Your task to perform on an android device: refresh tabs in the chrome app Image 0: 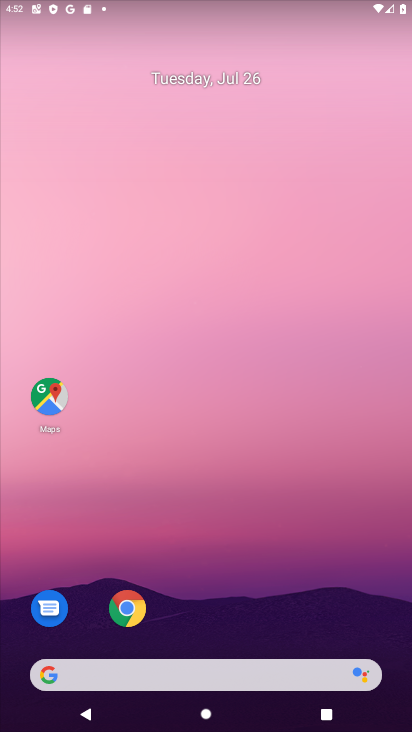
Step 0: click (122, 611)
Your task to perform on an android device: refresh tabs in the chrome app Image 1: 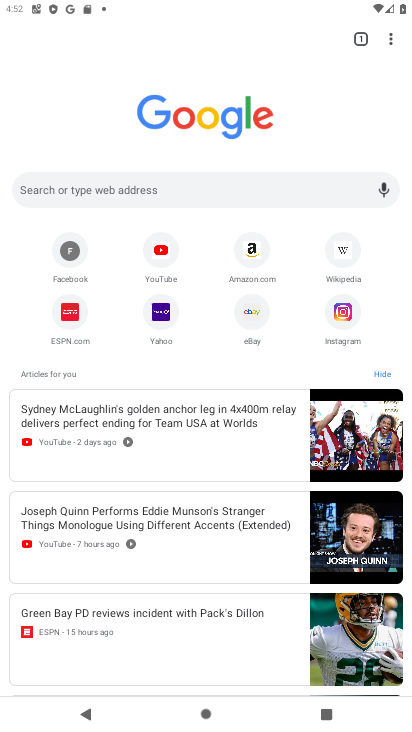
Step 1: click (383, 36)
Your task to perform on an android device: refresh tabs in the chrome app Image 2: 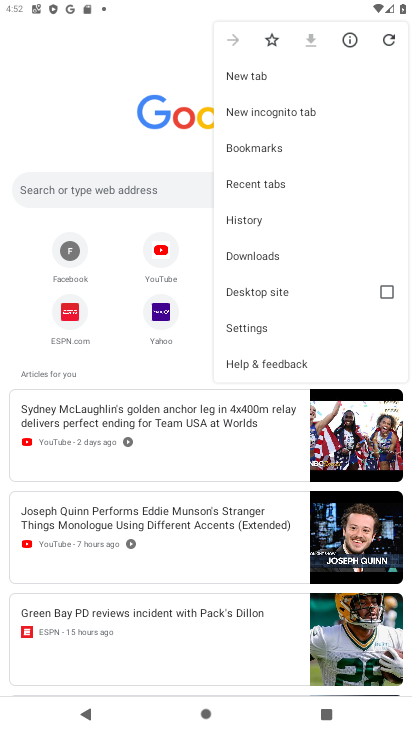
Step 2: click (395, 40)
Your task to perform on an android device: refresh tabs in the chrome app Image 3: 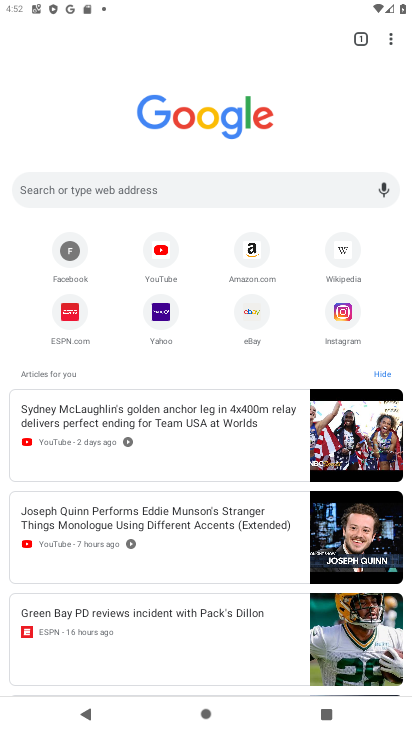
Step 3: task complete